Your task to perform on an android device: Show me recent news Image 0: 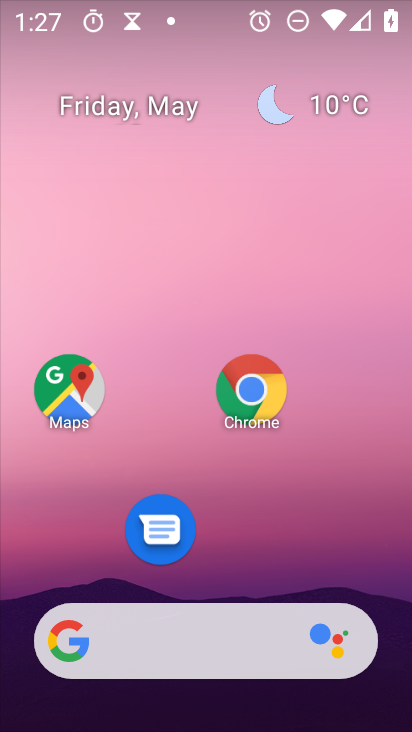
Step 0: click (71, 640)
Your task to perform on an android device: Show me recent news Image 1: 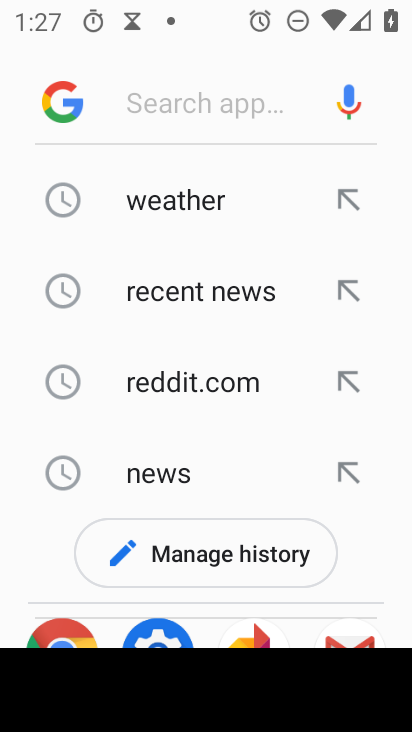
Step 1: click (159, 467)
Your task to perform on an android device: Show me recent news Image 2: 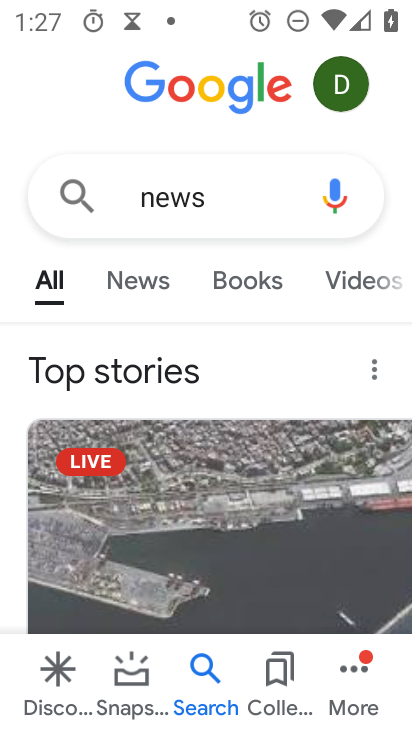
Step 2: click (161, 286)
Your task to perform on an android device: Show me recent news Image 3: 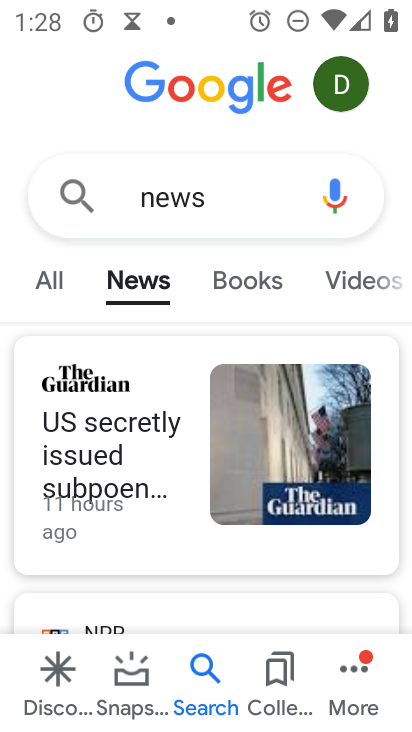
Step 3: task complete